Your task to perform on an android device: choose inbox layout in the gmail app Image 0: 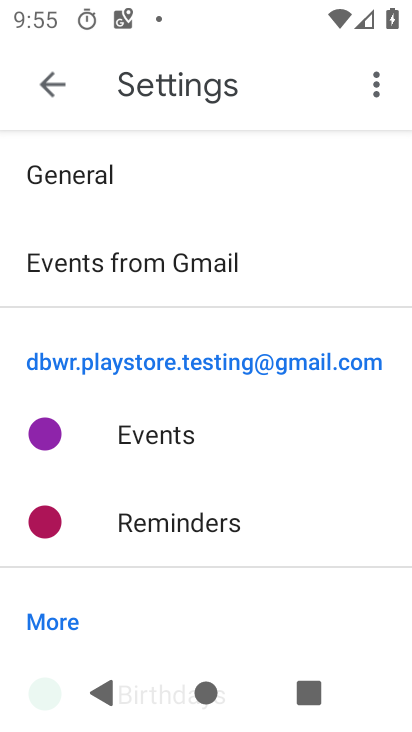
Step 0: press home button
Your task to perform on an android device: choose inbox layout in the gmail app Image 1: 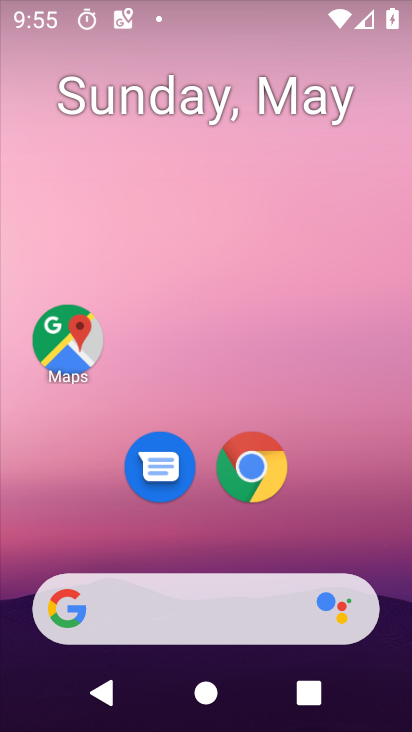
Step 1: drag from (210, 532) to (217, 252)
Your task to perform on an android device: choose inbox layout in the gmail app Image 2: 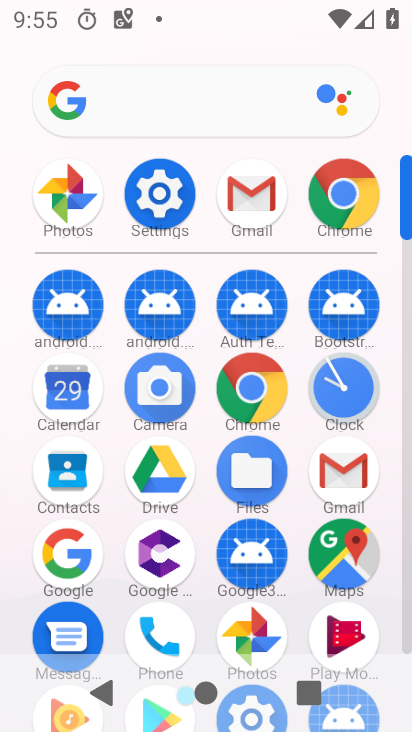
Step 2: click (222, 207)
Your task to perform on an android device: choose inbox layout in the gmail app Image 3: 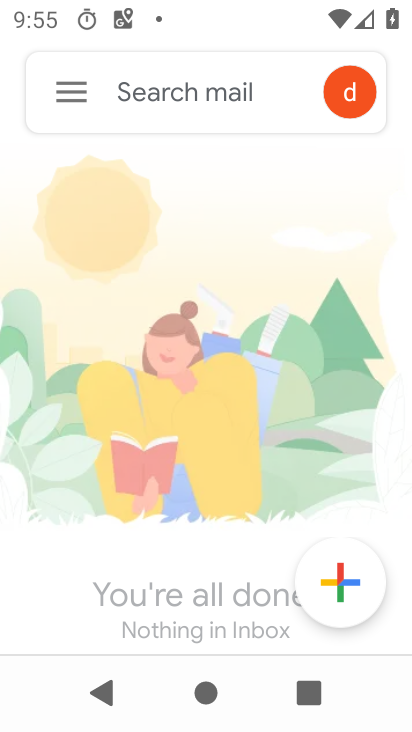
Step 3: click (83, 82)
Your task to perform on an android device: choose inbox layout in the gmail app Image 4: 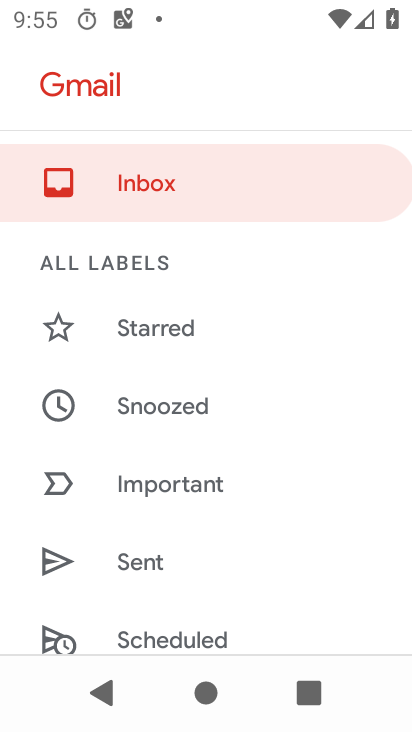
Step 4: drag from (192, 622) to (142, 259)
Your task to perform on an android device: choose inbox layout in the gmail app Image 5: 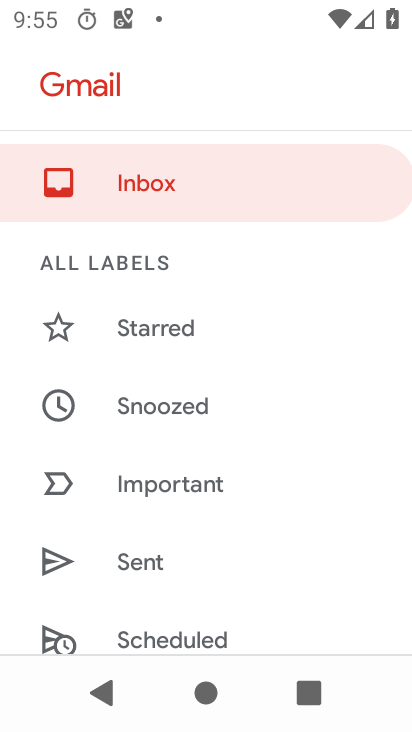
Step 5: drag from (163, 530) to (181, 261)
Your task to perform on an android device: choose inbox layout in the gmail app Image 6: 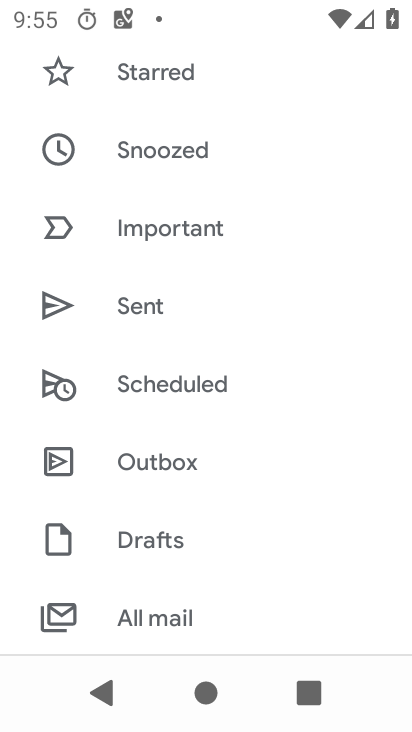
Step 6: drag from (215, 602) to (231, 365)
Your task to perform on an android device: choose inbox layout in the gmail app Image 7: 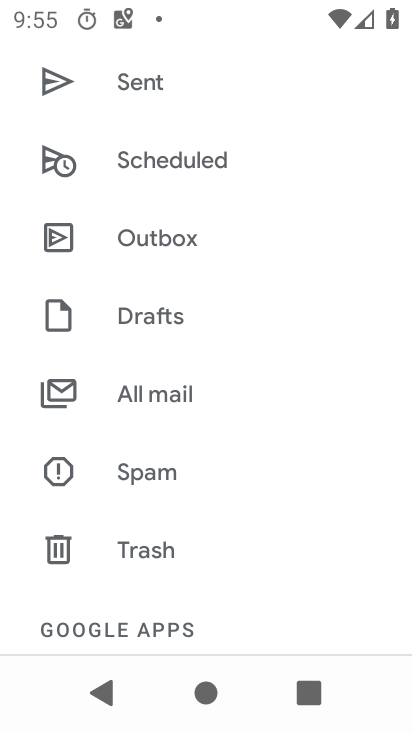
Step 7: drag from (184, 639) to (204, 398)
Your task to perform on an android device: choose inbox layout in the gmail app Image 8: 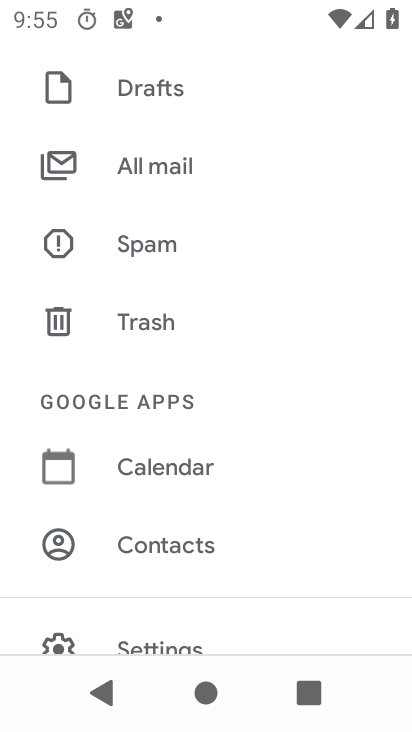
Step 8: drag from (171, 567) to (182, 298)
Your task to perform on an android device: choose inbox layout in the gmail app Image 9: 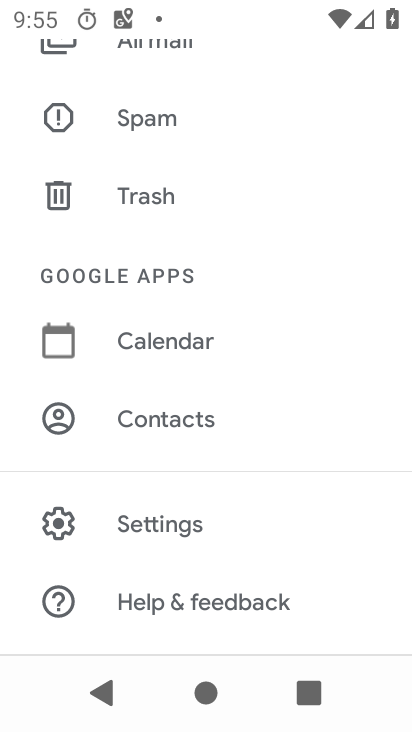
Step 9: click (184, 537)
Your task to perform on an android device: choose inbox layout in the gmail app Image 10: 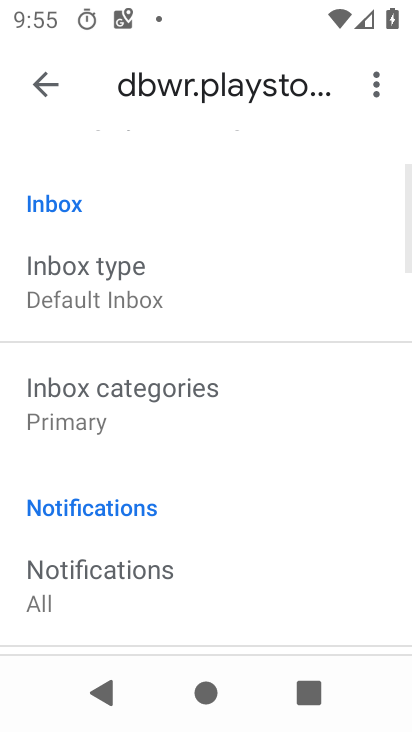
Step 10: click (186, 301)
Your task to perform on an android device: choose inbox layout in the gmail app Image 11: 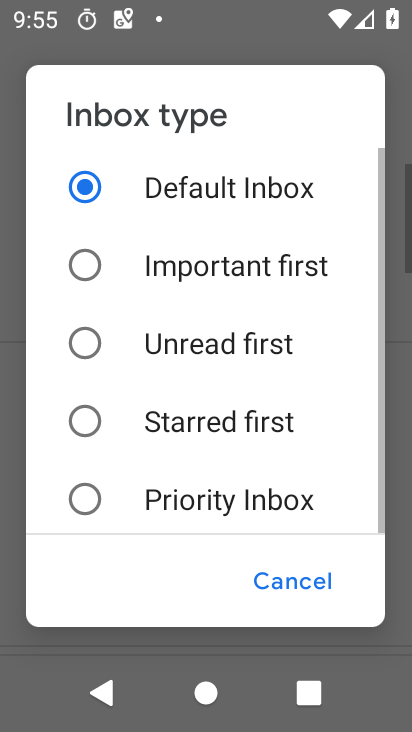
Step 11: click (193, 492)
Your task to perform on an android device: choose inbox layout in the gmail app Image 12: 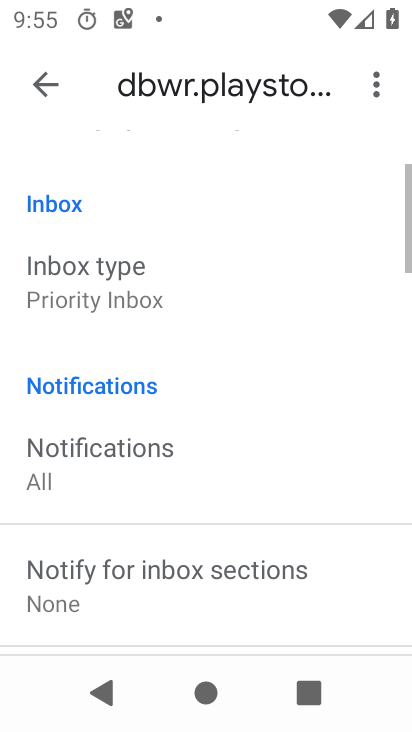
Step 12: task complete